Your task to perform on an android device: Go to ESPN.com Image 0: 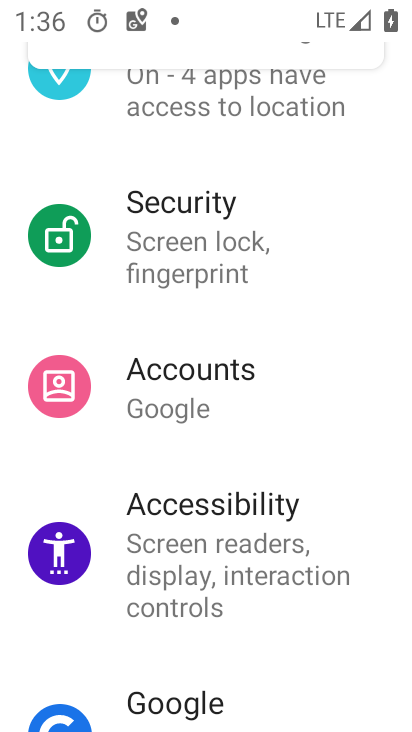
Step 0: press home button
Your task to perform on an android device: Go to ESPN.com Image 1: 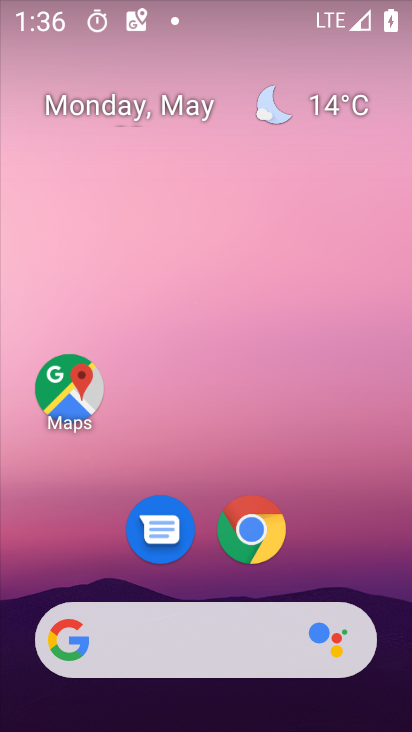
Step 1: drag from (370, 566) to (370, 150)
Your task to perform on an android device: Go to ESPN.com Image 2: 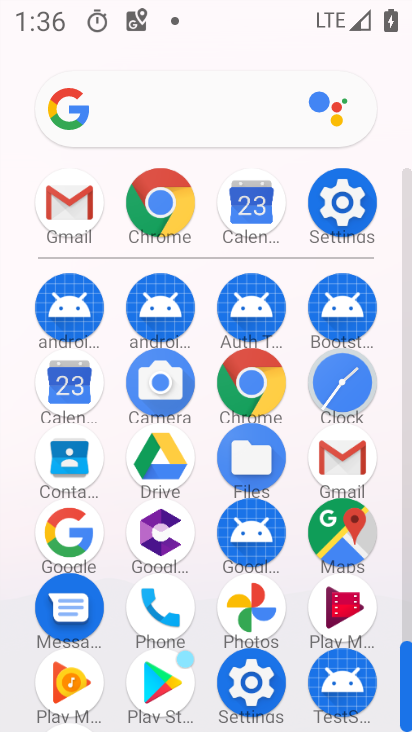
Step 2: click (239, 385)
Your task to perform on an android device: Go to ESPN.com Image 3: 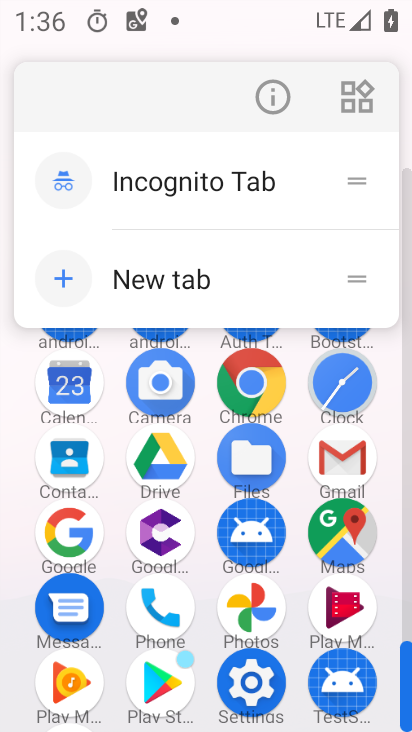
Step 3: click (239, 385)
Your task to perform on an android device: Go to ESPN.com Image 4: 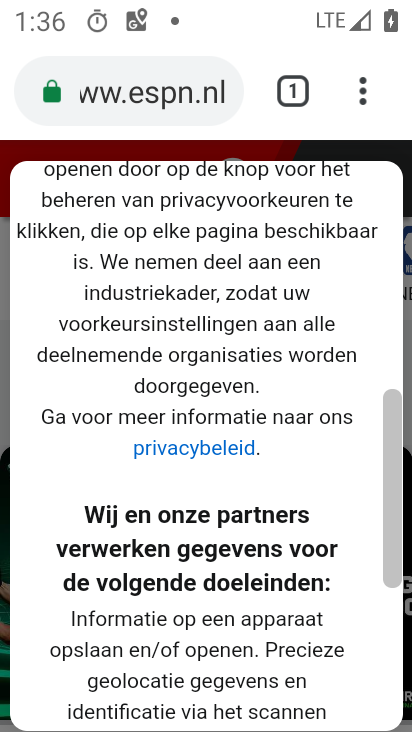
Step 4: click (174, 99)
Your task to perform on an android device: Go to ESPN.com Image 5: 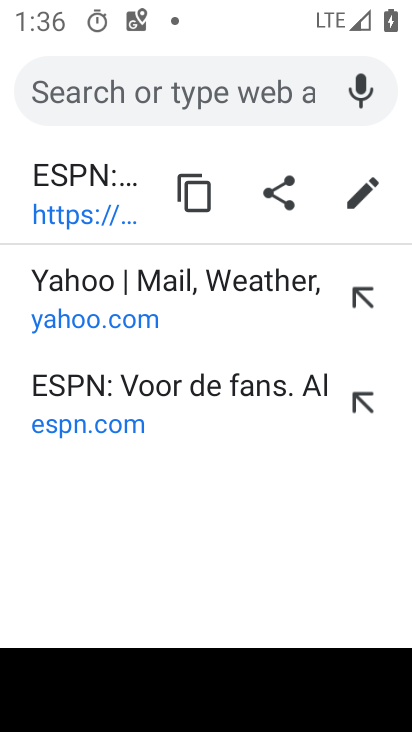
Step 5: click (251, 97)
Your task to perform on an android device: Go to ESPN.com Image 6: 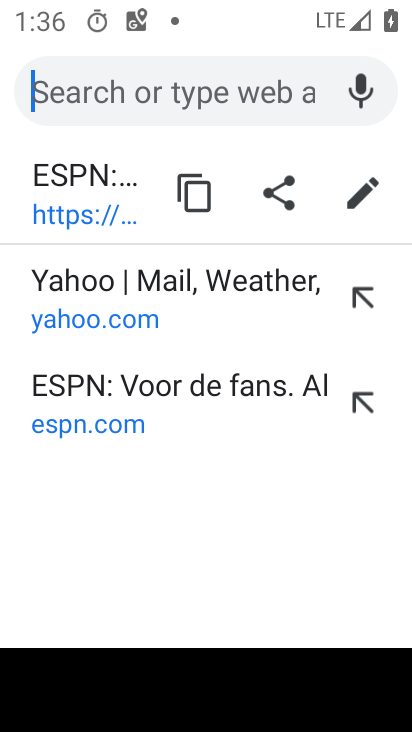
Step 6: type "espn.com"
Your task to perform on an android device: Go to ESPN.com Image 7: 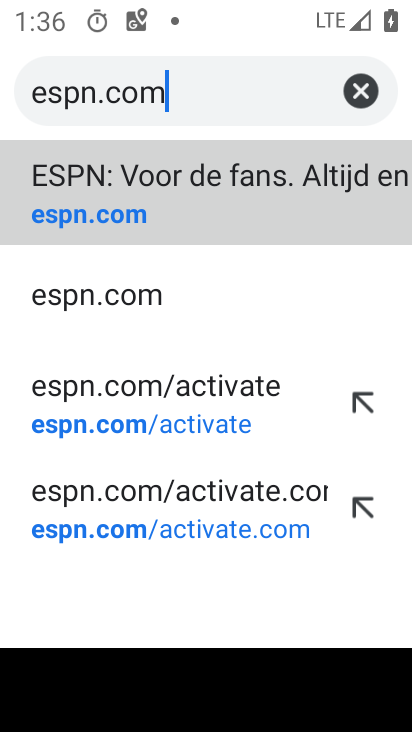
Step 7: click (85, 303)
Your task to perform on an android device: Go to ESPN.com Image 8: 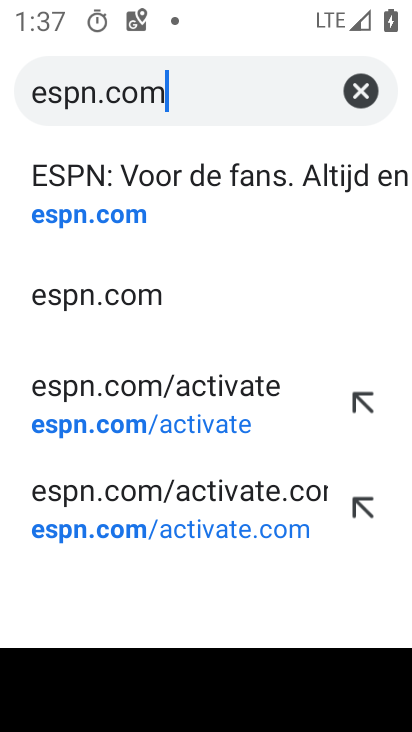
Step 8: click (110, 198)
Your task to perform on an android device: Go to ESPN.com Image 9: 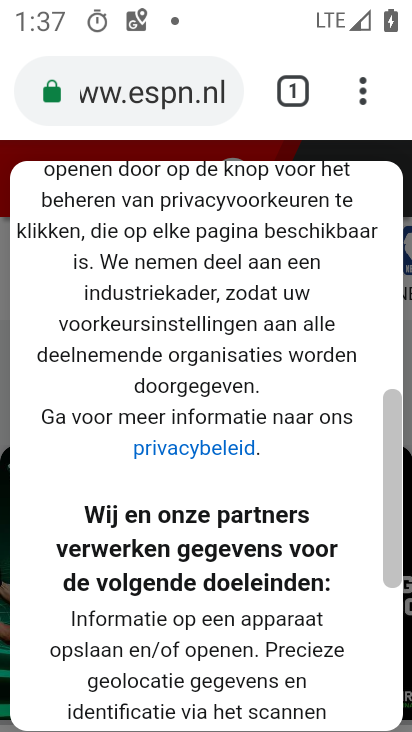
Step 9: task complete